Your task to perform on an android device: turn off location Image 0: 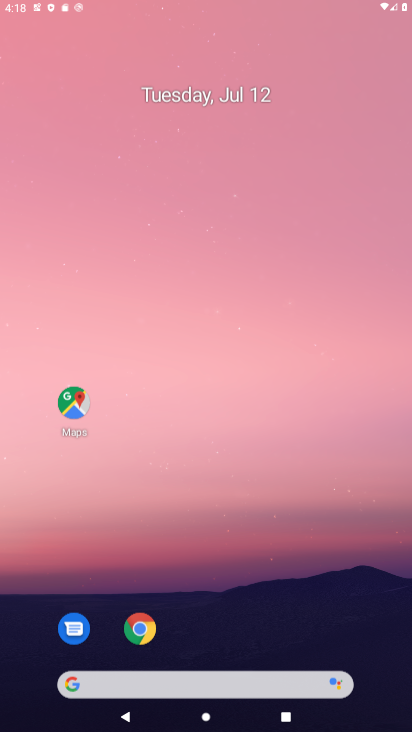
Step 0: press home button
Your task to perform on an android device: turn off location Image 1: 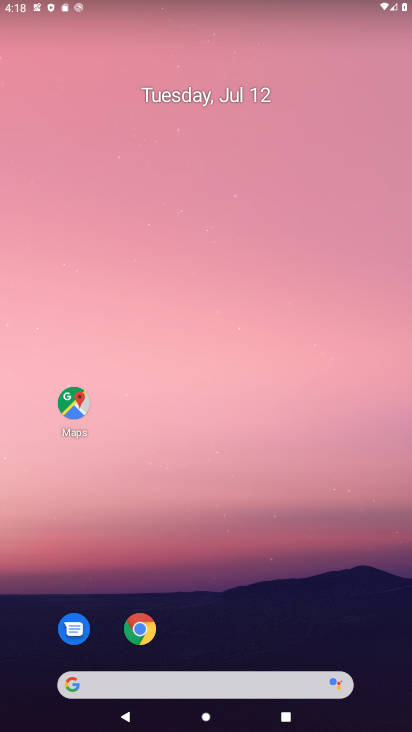
Step 1: drag from (234, 622) to (220, 139)
Your task to perform on an android device: turn off location Image 2: 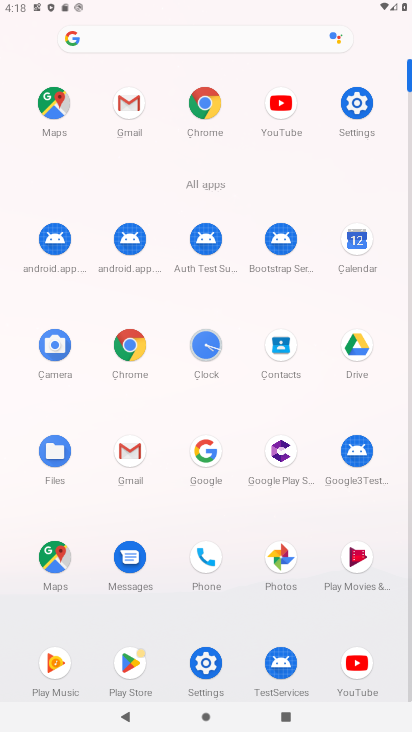
Step 2: click (351, 101)
Your task to perform on an android device: turn off location Image 3: 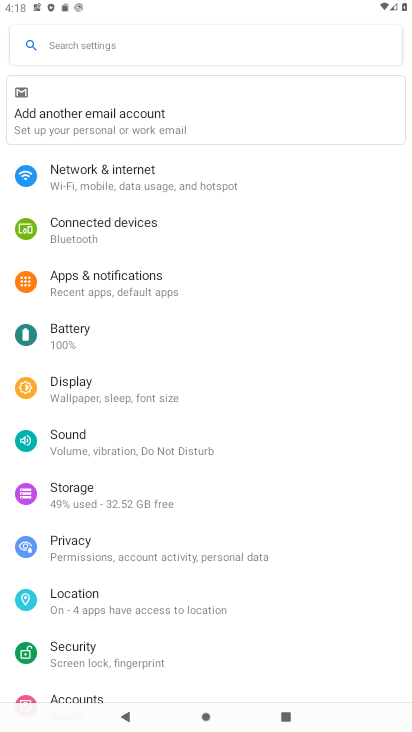
Step 3: click (94, 592)
Your task to perform on an android device: turn off location Image 4: 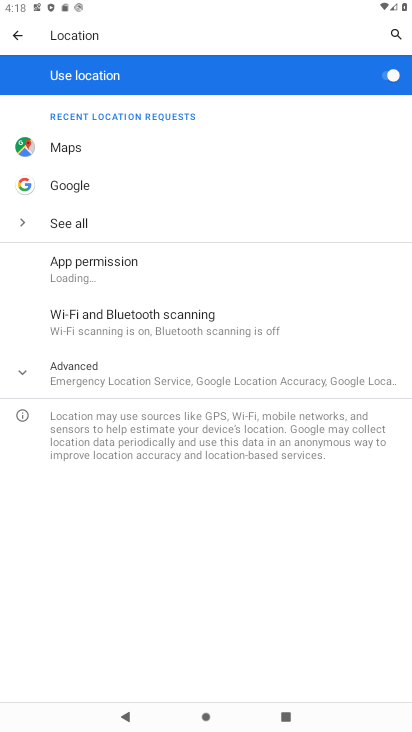
Step 4: click (395, 73)
Your task to perform on an android device: turn off location Image 5: 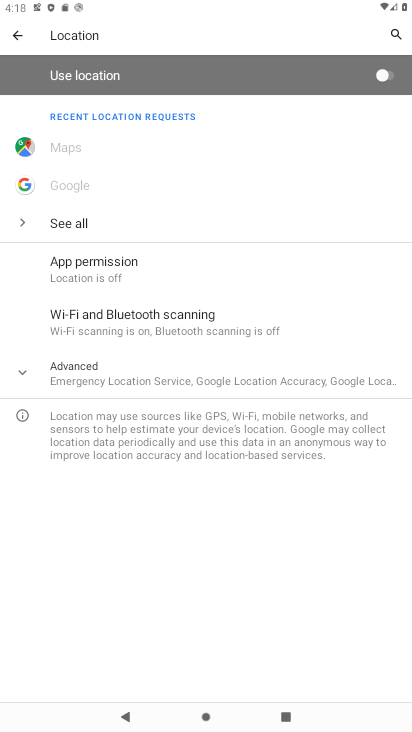
Step 5: task complete